Your task to perform on an android device: Open Chrome and go to settings Image 0: 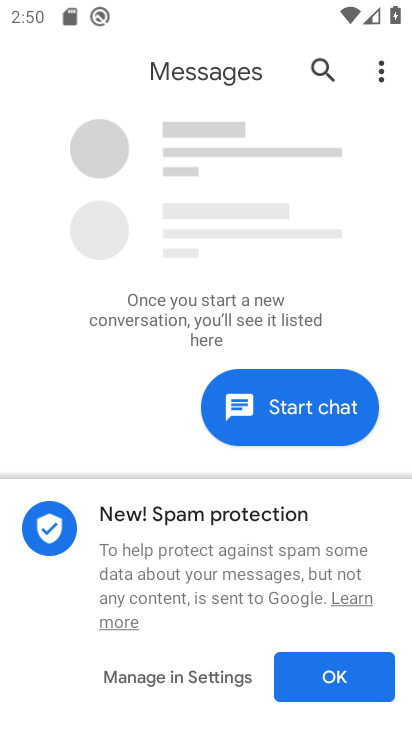
Step 0: press back button
Your task to perform on an android device: Open Chrome and go to settings Image 1: 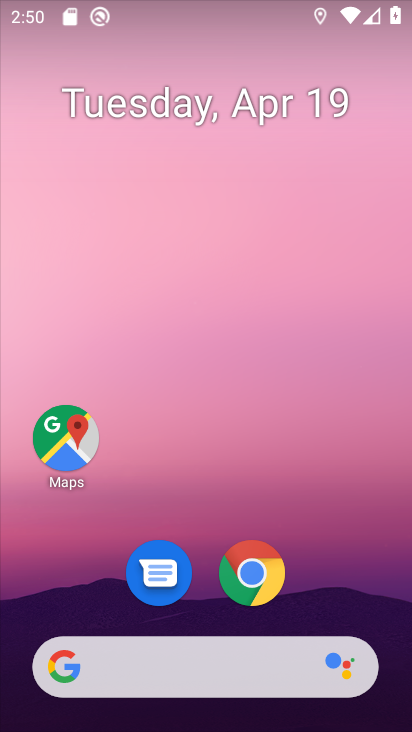
Step 1: drag from (186, 620) to (196, 107)
Your task to perform on an android device: Open Chrome and go to settings Image 2: 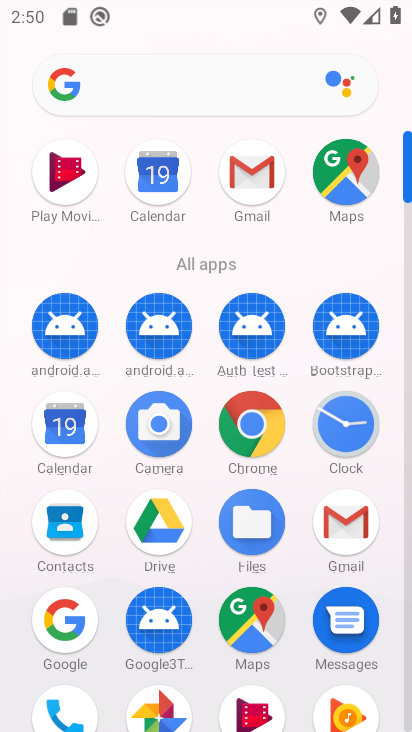
Step 2: click (245, 431)
Your task to perform on an android device: Open Chrome and go to settings Image 3: 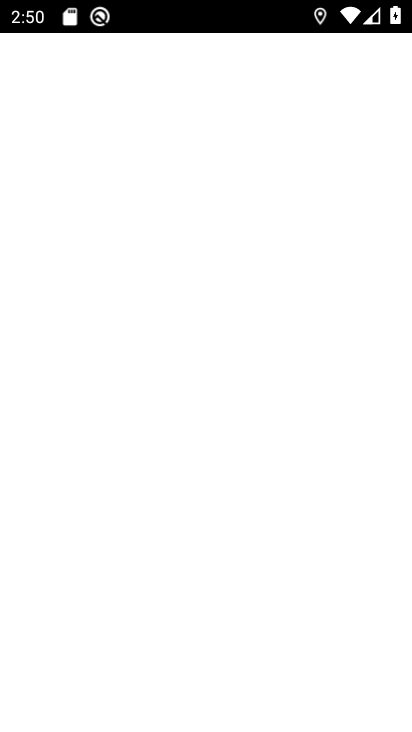
Step 3: click (245, 431)
Your task to perform on an android device: Open Chrome and go to settings Image 4: 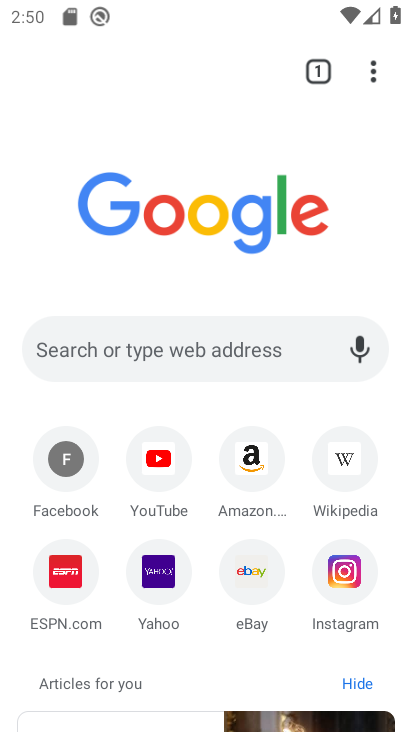
Step 4: click (396, 79)
Your task to perform on an android device: Open Chrome and go to settings Image 5: 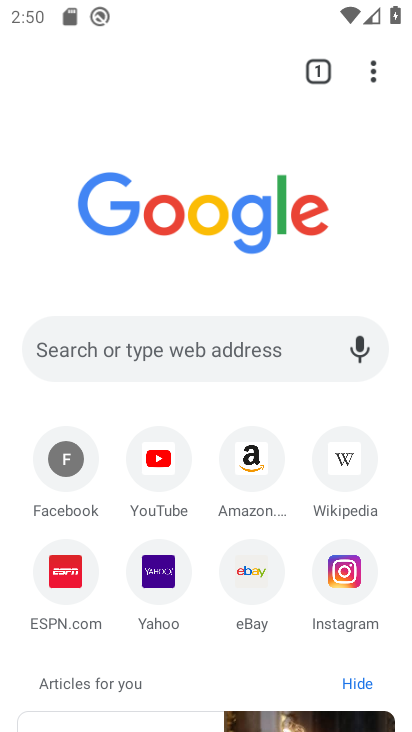
Step 5: task complete